Your task to perform on an android device: toggle airplane mode Image 0: 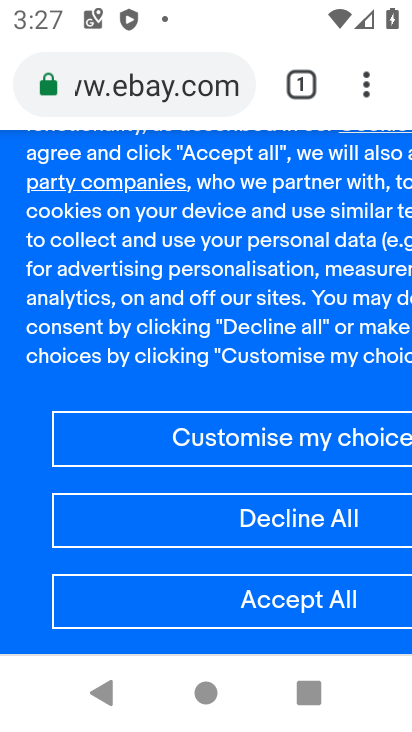
Step 0: press home button
Your task to perform on an android device: toggle airplane mode Image 1: 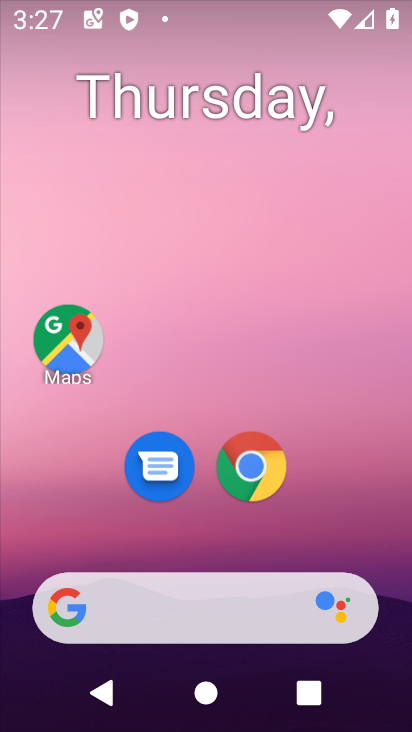
Step 1: drag from (271, 662) to (242, 42)
Your task to perform on an android device: toggle airplane mode Image 2: 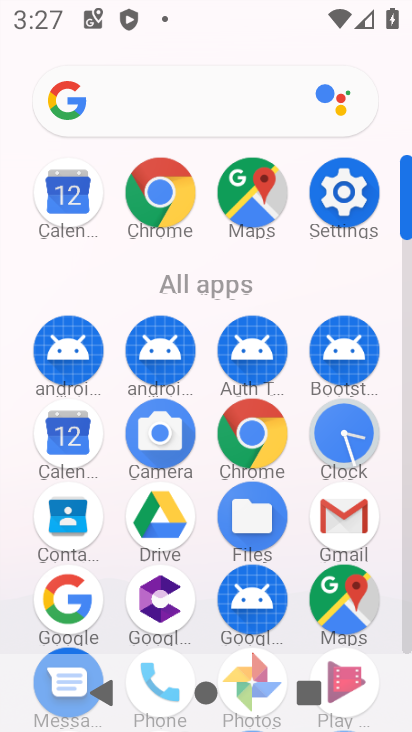
Step 2: click (350, 201)
Your task to perform on an android device: toggle airplane mode Image 3: 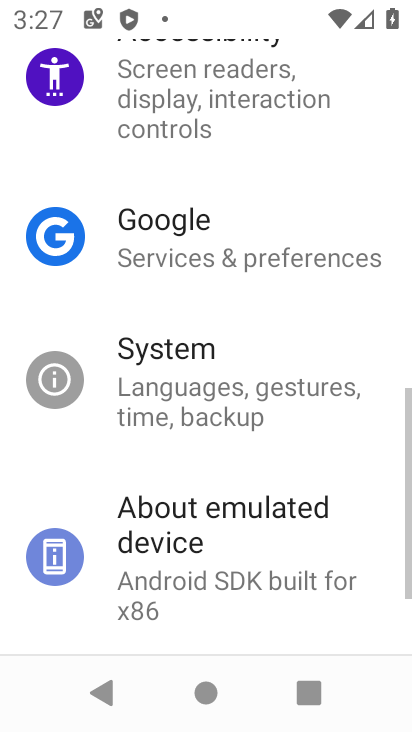
Step 3: drag from (322, 220) to (324, 657)
Your task to perform on an android device: toggle airplane mode Image 4: 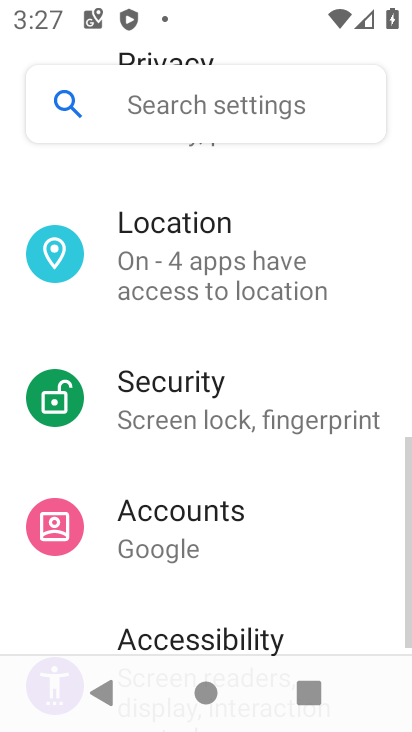
Step 4: drag from (279, 334) to (291, 671)
Your task to perform on an android device: toggle airplane mode Image 5: 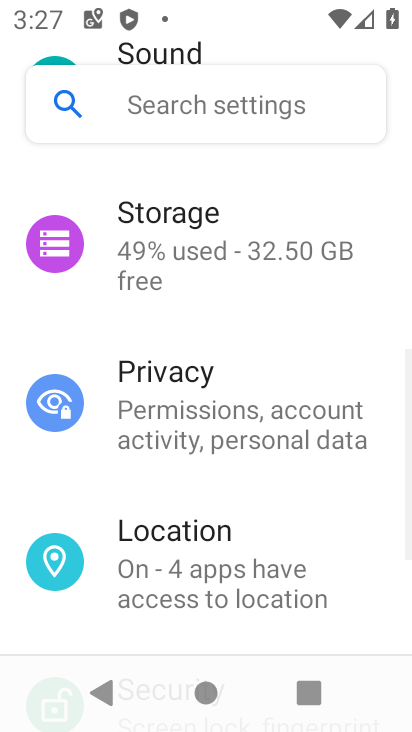
Step 5: drag from (283, 171) to (318, 684)
Your task to perform on an android device: toggle airplane mode Image 6: 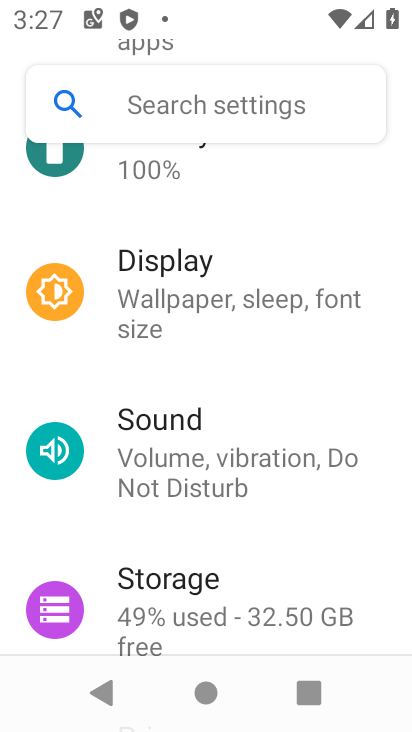
Step 6: drag from (267, 218) to (350, 728)
Your task to perform on an android device: toggle airplane mode Image 7: 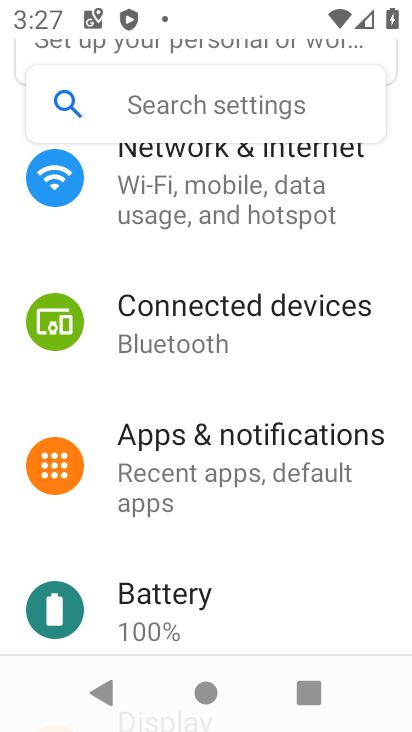
Step 7: drag from (287, 234) to (340, 621)
Your task to perform on an android device: toggle airplane mode Image 8: 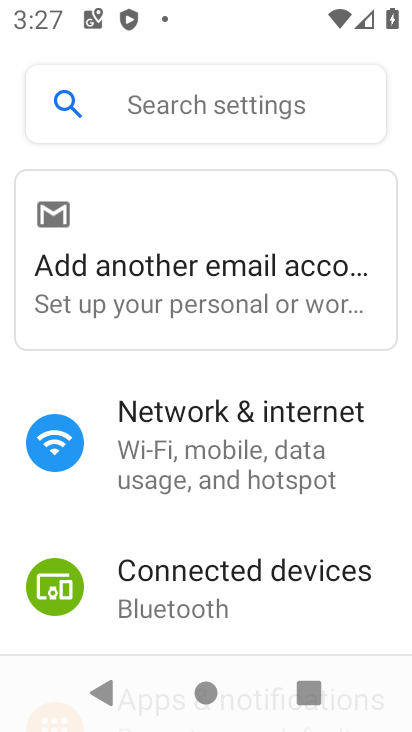
Step 8: click (336, 462)
Your task to perform on an android device: toggle airplane mode Image 9: 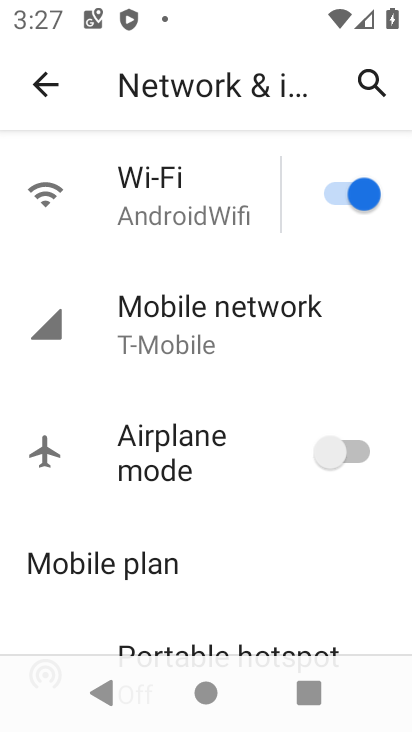
Step 9: click (359, 447)
Your task to perform on an android device: toggle airplane mode Image 10: 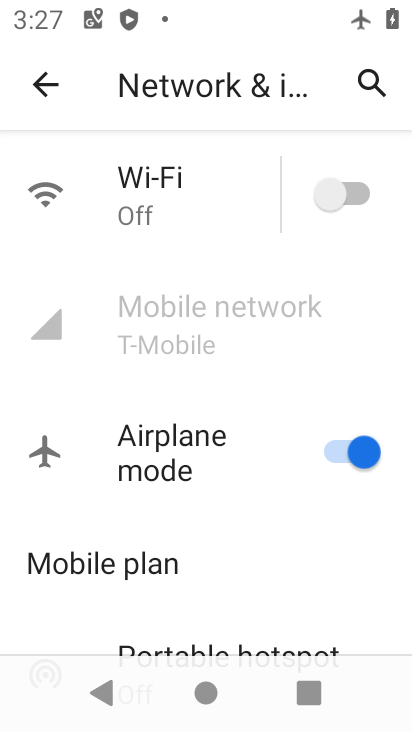
Step 10: task complete